Your task to perform on an android device: Open Yahoo.com Image 0: 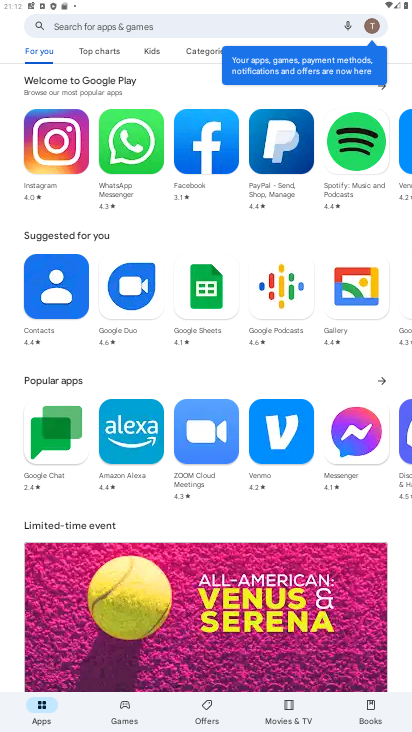
Step 0: press home button
Your task to perform on an android device: Open Yahoo.com Image 1: 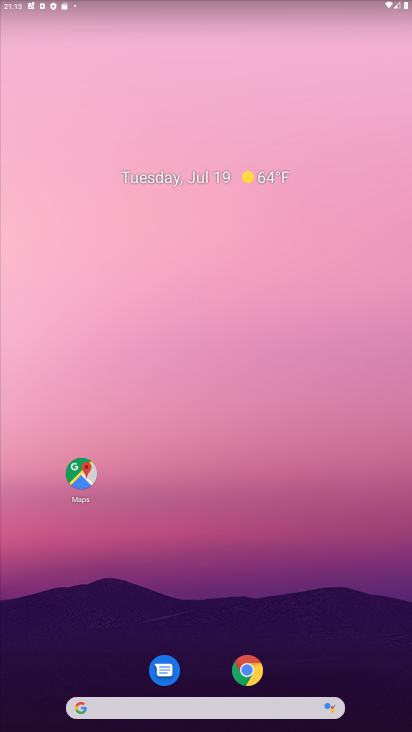
Step 1: click (166, 707)
Your task to perform on an android device: Open Yahoo.com Image 2: 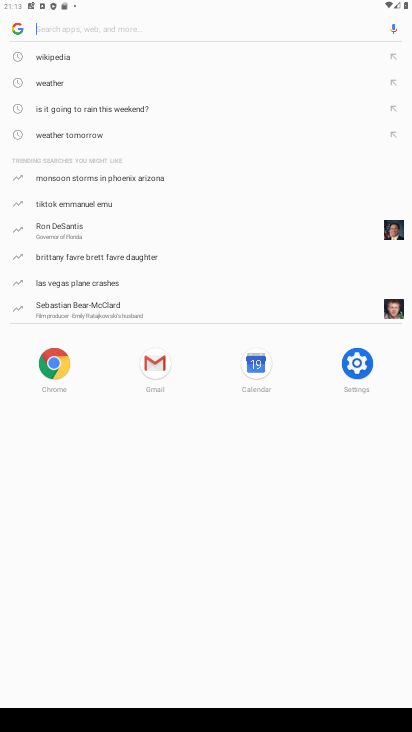
Step 2: type "yahoo.com"
Your task to perform on an android device: Open Yahoo.com Image 3: 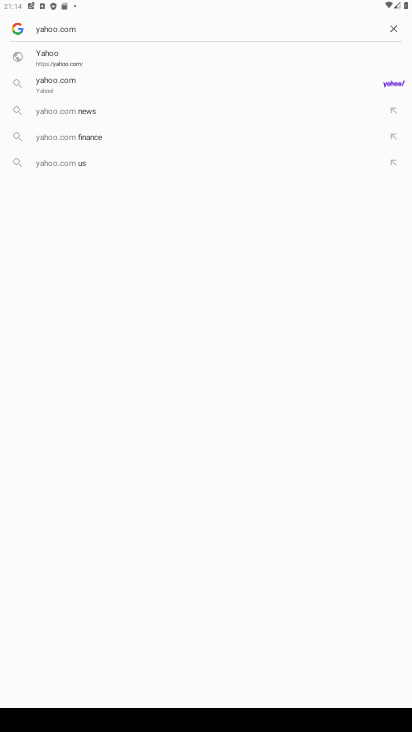
Step 3: click (72, 57)
Your task to perform on an android device: Open Yahoo.com Image 4: 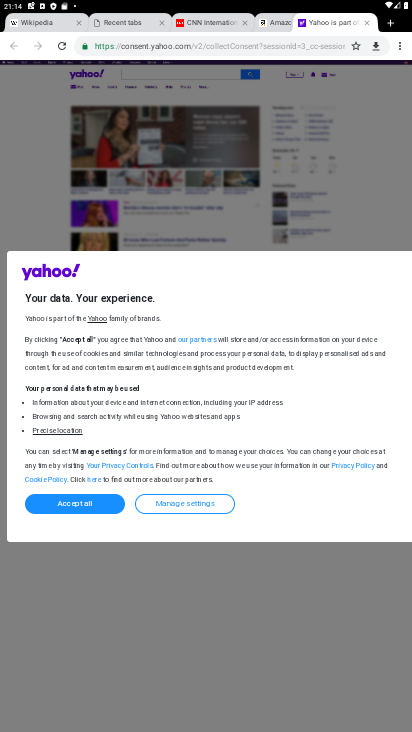
Step 4: task complete